Your task to perform on an android device: Check the news Image 0: 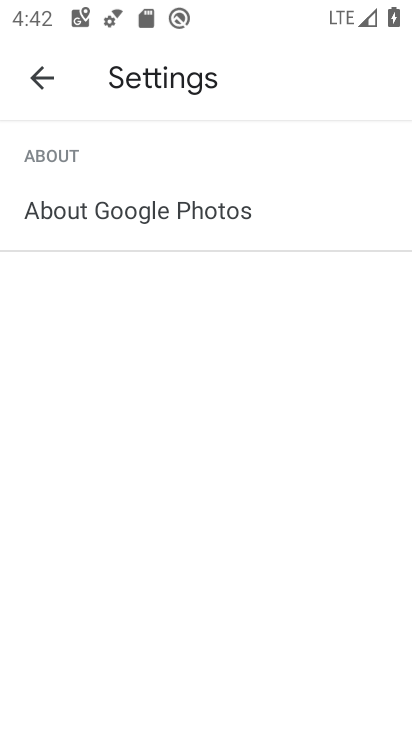
Step 0: press home button
Your task to perform on an android device: Check the news Image 1: 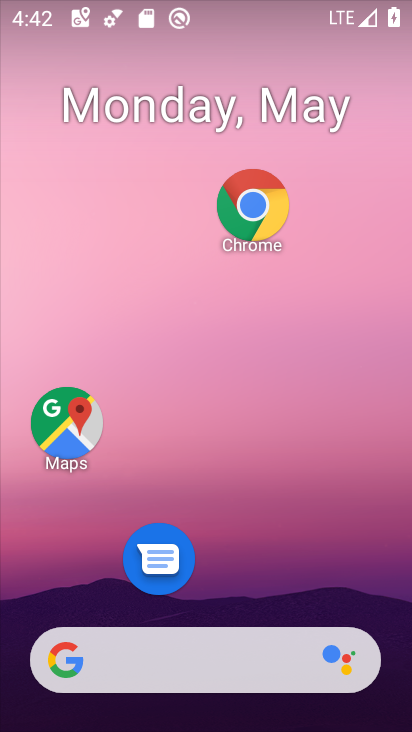
Step 1: click (187, 676)
Your task to perform on an android device: Check the news Image 2: 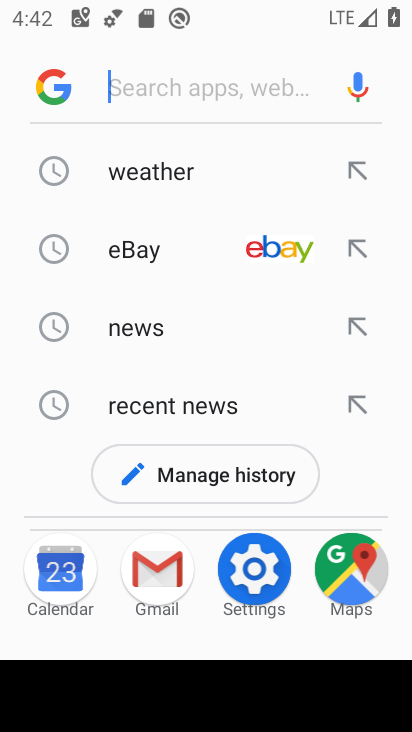
Step 2: click (125, 330)
Your task to perform on an android device: Check the news Image 3: 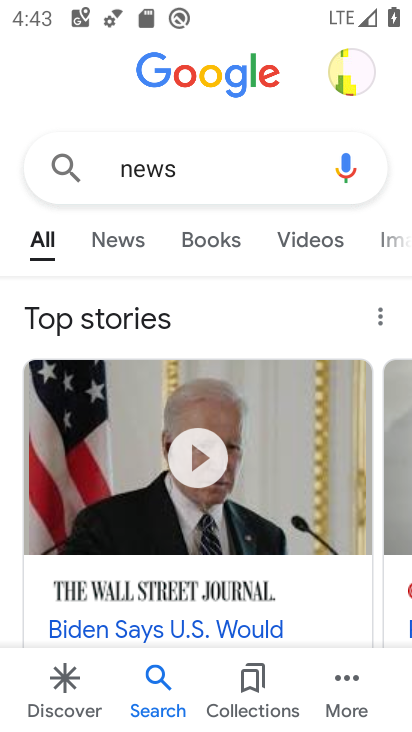
Step 3: task complete